Your task to perform on an android device: Open Maps and search for coffee Image 0: 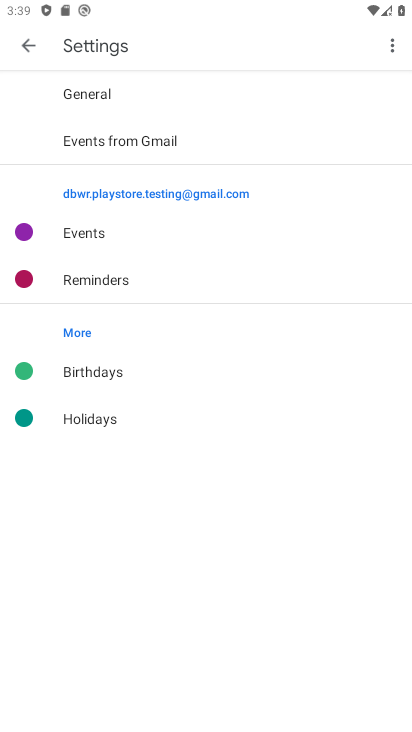
Step 0: drag from (190, 627) to (211, 243)
Your task to perform on an android device: Open Maps and search for coffee Image 1: 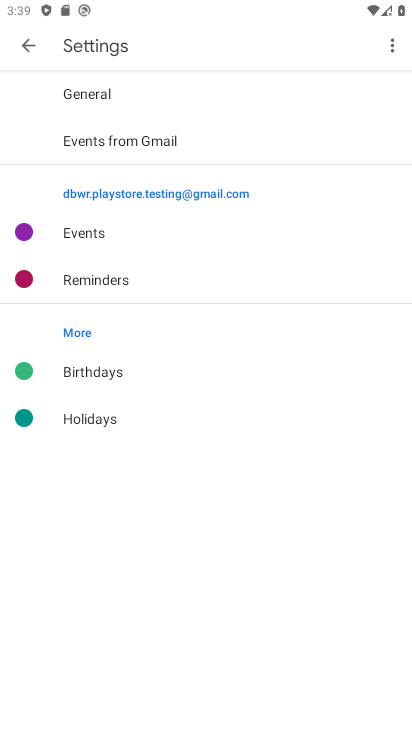
Step 1: press home button
Your task to perform on an android device: Open Maps and search for coffee Image 2: 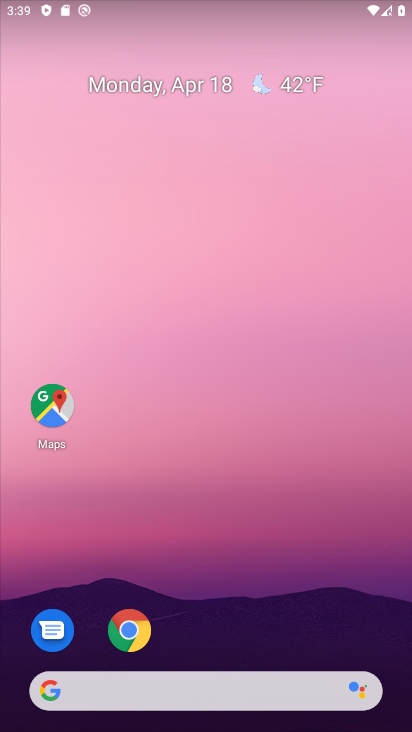
Step 2: drag from (245, 453) to (257, 209)
Your task to perform on an android device: Open Maps and search for coffee Image 3: 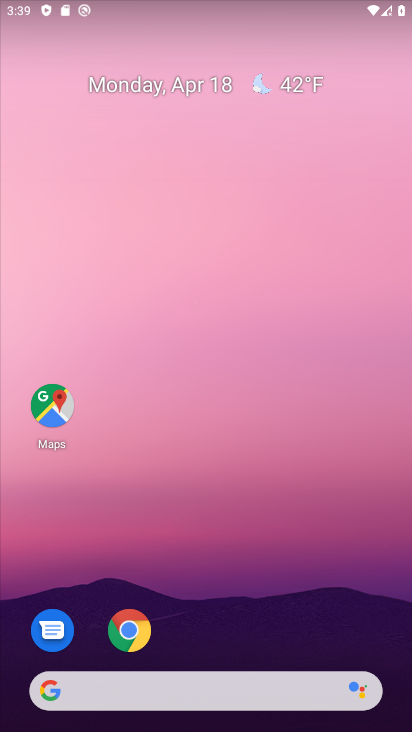
Step 3: drag from (220, 514) to (253, 125)
Your task to perform on an android device: Open Maps and search for coffee Image 4: 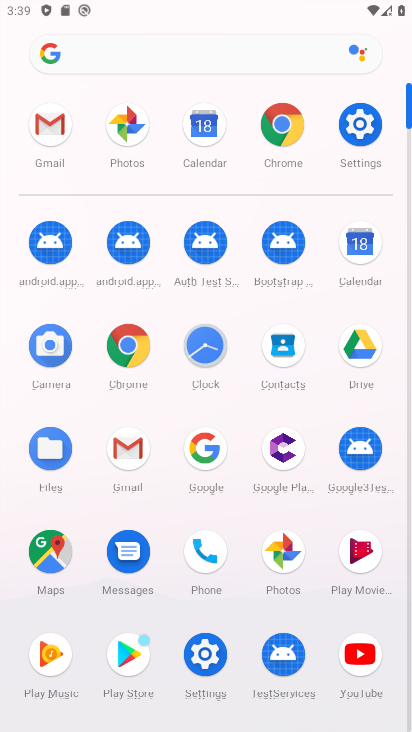
Step 4: click (59, 533)
Your task to perform on an android device: Open Maps and search for coffee Image 5: 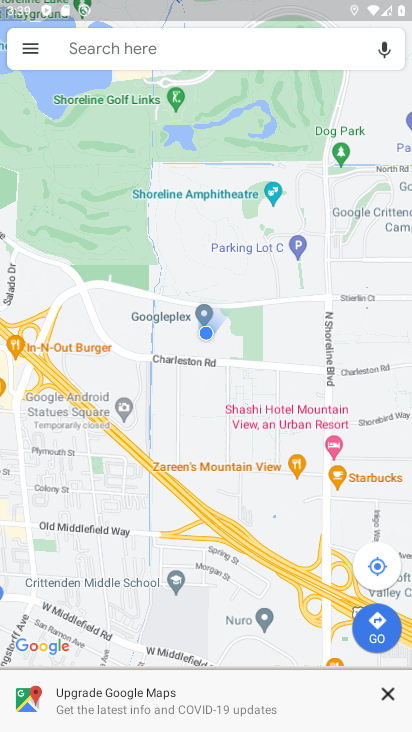
Step 5: click (264, 52)
Your task to perform on an android device: Open Maps and search for coffee Image 6: 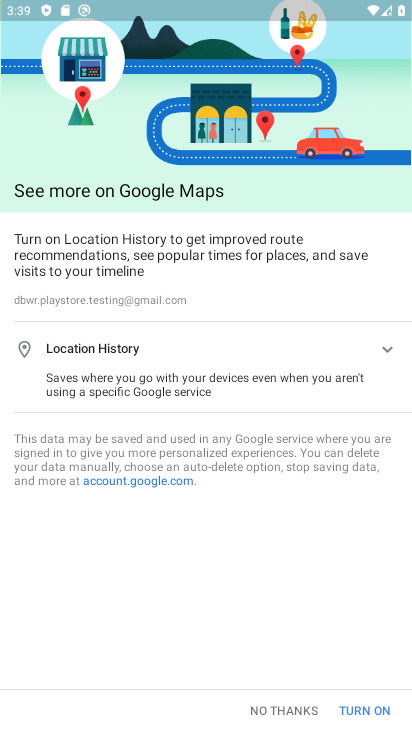
Step 6: click (265, 708)
Your task to perform on an android device: Open Maps and search for coffee Image 7: 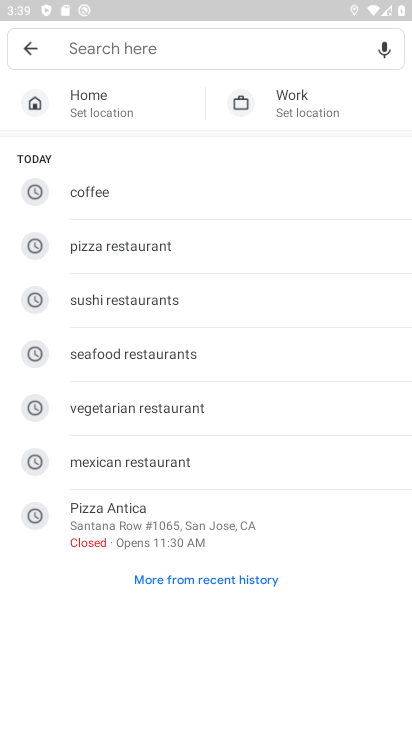
Step 7: click (259, 36)
Your task to perform on an android device: Open Maps and search for coffee Image 8: 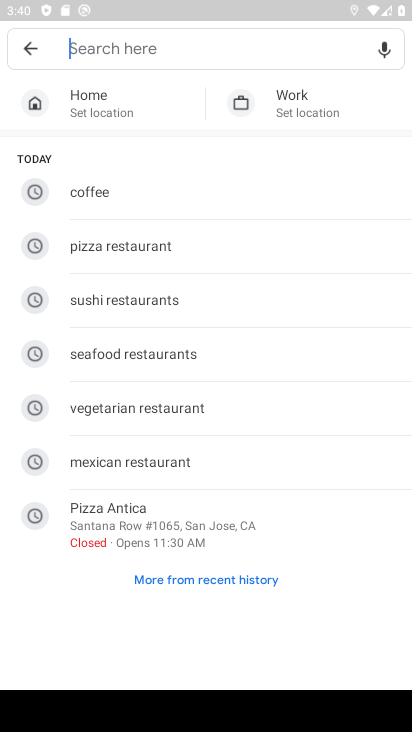
Step 8: type " search for coffee"
Your task to perform on an android device: Open Maps and search for coffee Image 9: 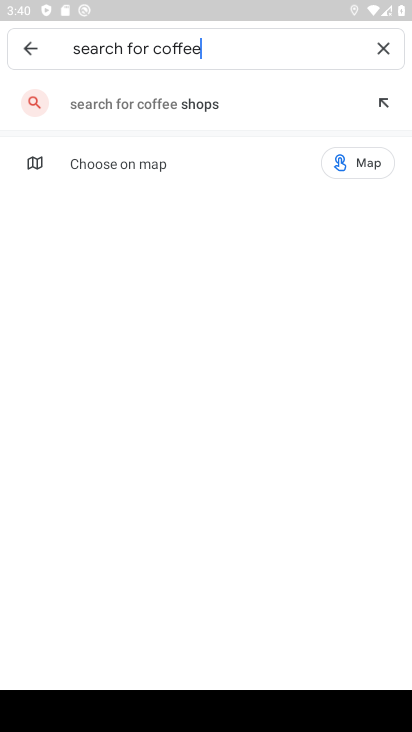
Step 9: click (159, 117)
Your task to perform on an android device: Open Maps and search for coffee Image 10: 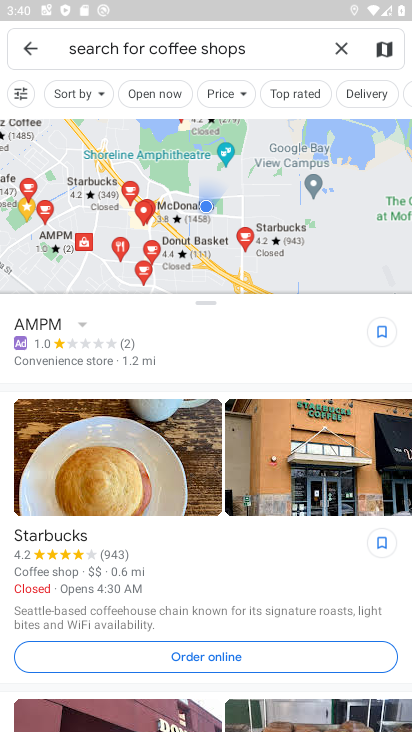
Step 10: task complete